Your task to perform on an android device: toggle translation in the chrome app Image 0: 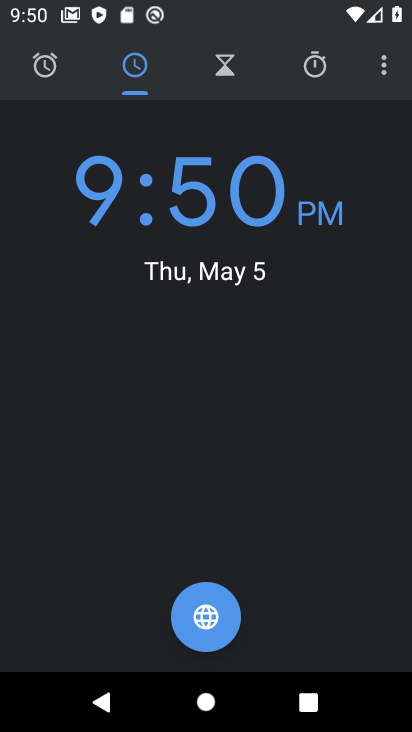
Step 0: press home button
Your task to perform on an android device: toggle translation in the chrome app Image 1: 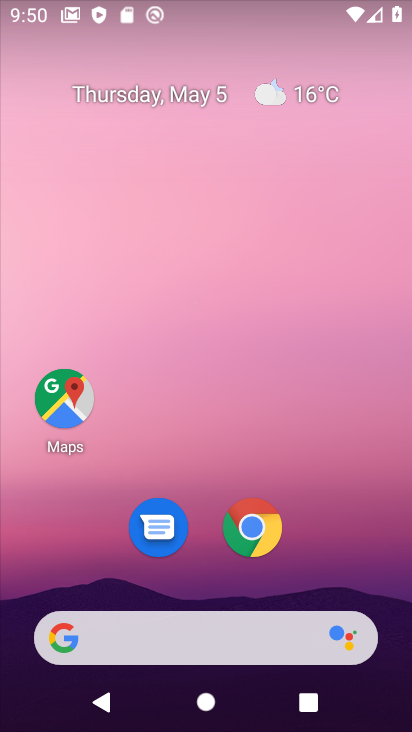
Step 1: click (249, 526)
Your task to perform on an android device: toggle translation in the chrome app Image 2: 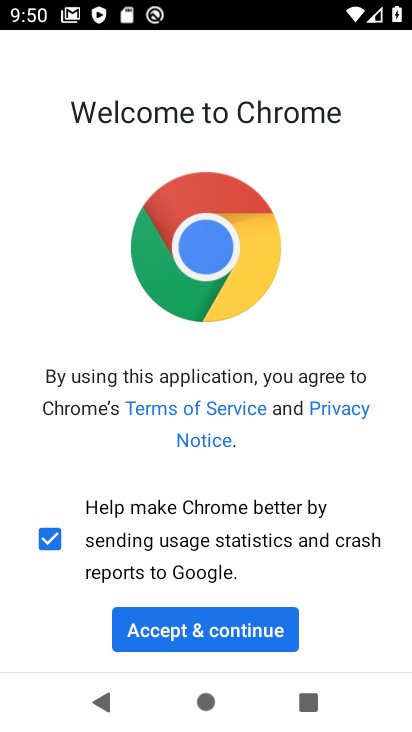
Step 2: click (206, 630)
Your task to perform on an android device: toggle translation in the chrome app Image 3: 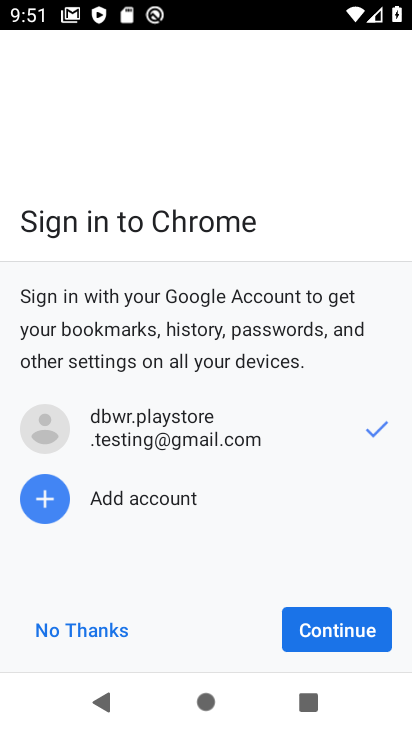
Step 3: click (100, 628)
Your task to perform on an android device: toggle translation in the chrome app Image 4: 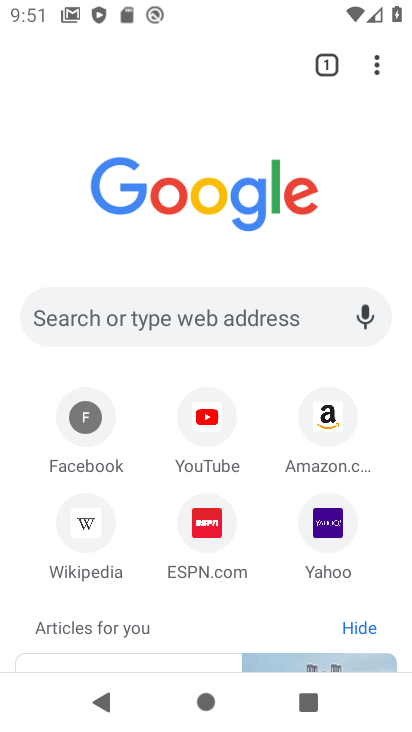
Step 4: click (374, 62)
Your task to perform on an android device: toggle translation in the chrome app Image 5: 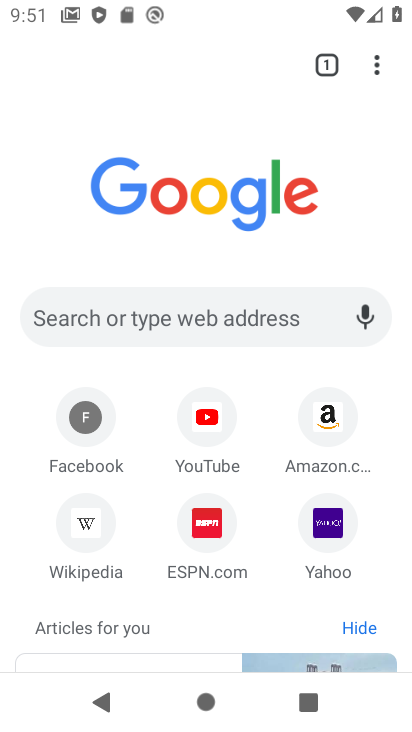
Step 5: click (378, 70)
Your task to perform on an android device: toggle translation in the chrome app Image 6: 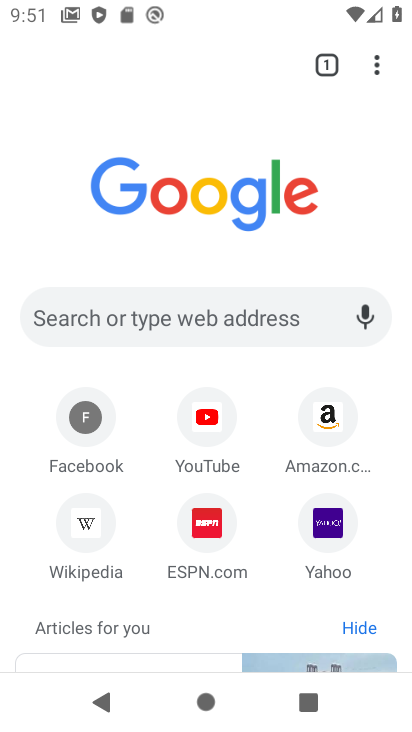
Step 6: click (375, 66)
Your task to perform on an android device: toggle translation in the chrome app Image 7: 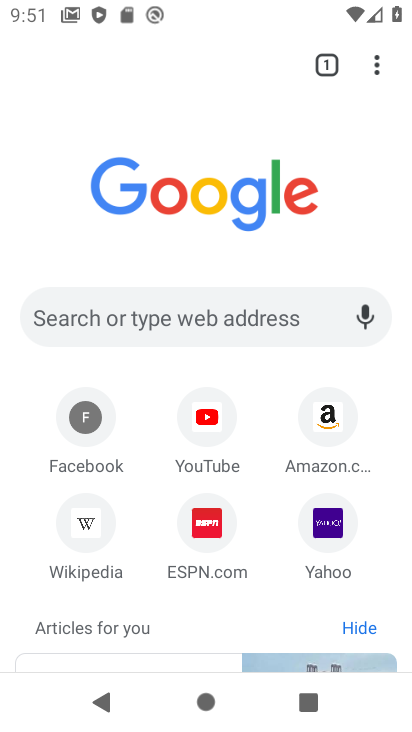
Step 7: click (374, 66)
Your task to perform on an android device: toggle translation in the chrome app Image 8: 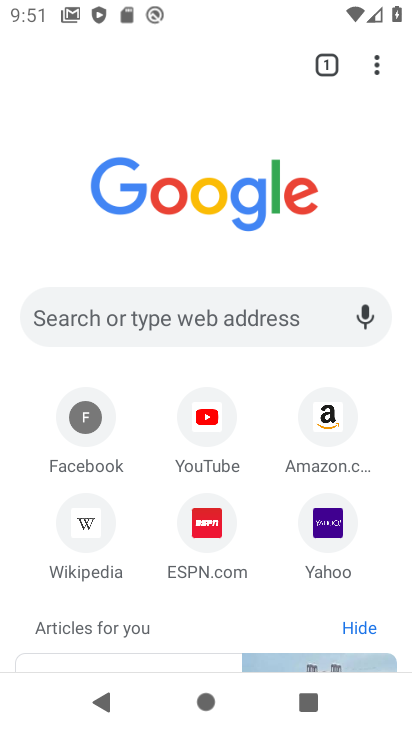
Step 8: click (372, 58)
Your task to perform on an android device: toggle translation in the chrome app Image 9: 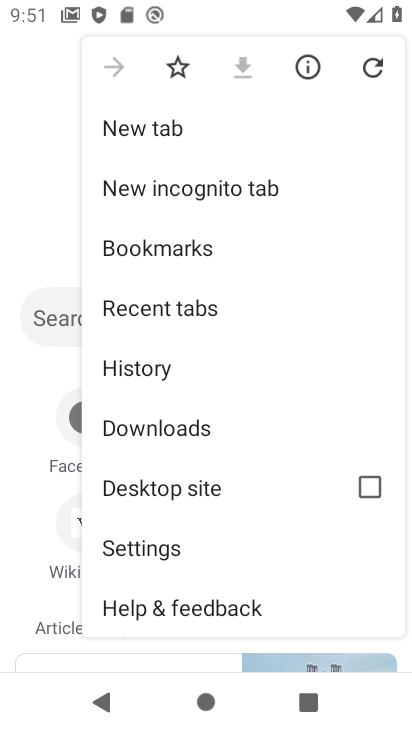
Step 9: click (223, 554)
Your task to perform on an android device: toggle translation in the chrome app Image 10: 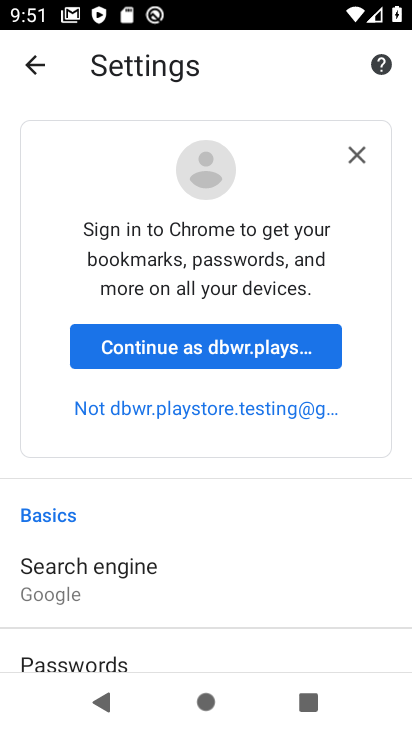
Step 10: drag from (210, 594) to (270, 214)
Your task to perform on an android device: toggle translation in the chrome app Image 11: 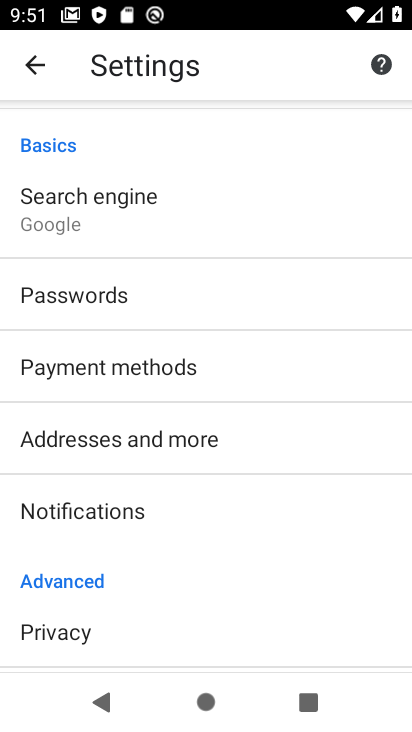
Step 11: drag from (194, 553) to (266, 259)
Your task to perform on an android device: toggle translation in the chrome app Image 12: 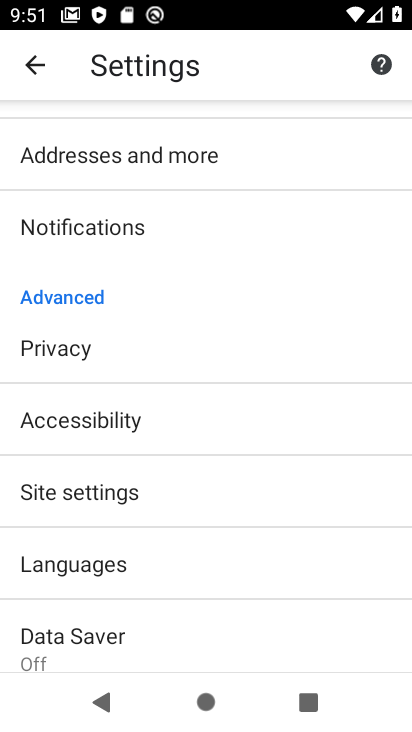
Step 12: click (131, 546)
Your task to perform on an android device: toggle translation in the chrome app Image 13: 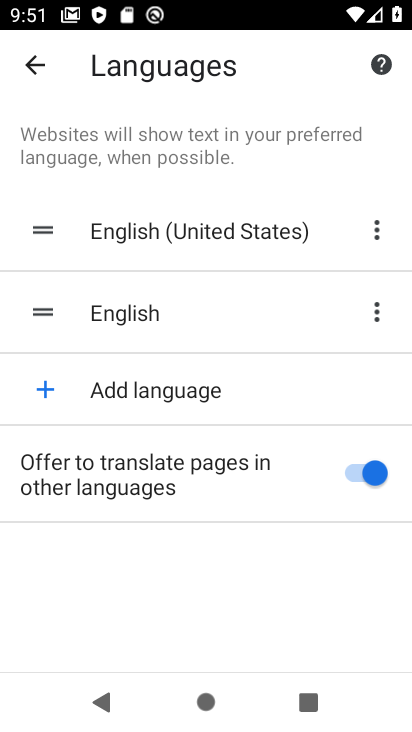
Step 13: click (376, 479)
Your task to perform on an android device: toggle translation in the chrome app Image 14: 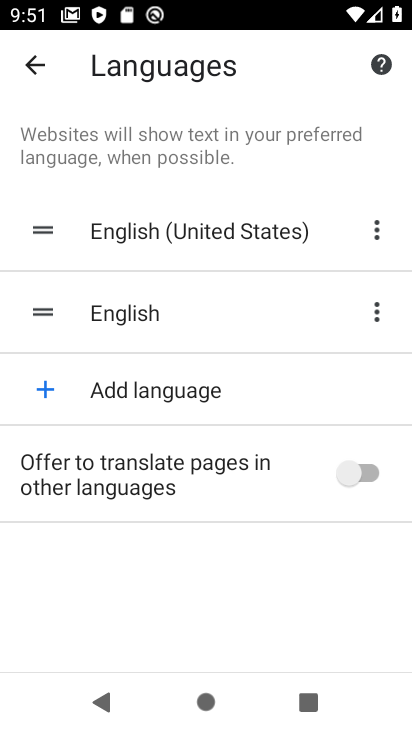
Step 14: task complete